Your task to perform on an android device: Open Google Chrome and open the bookmarks view Image 0: 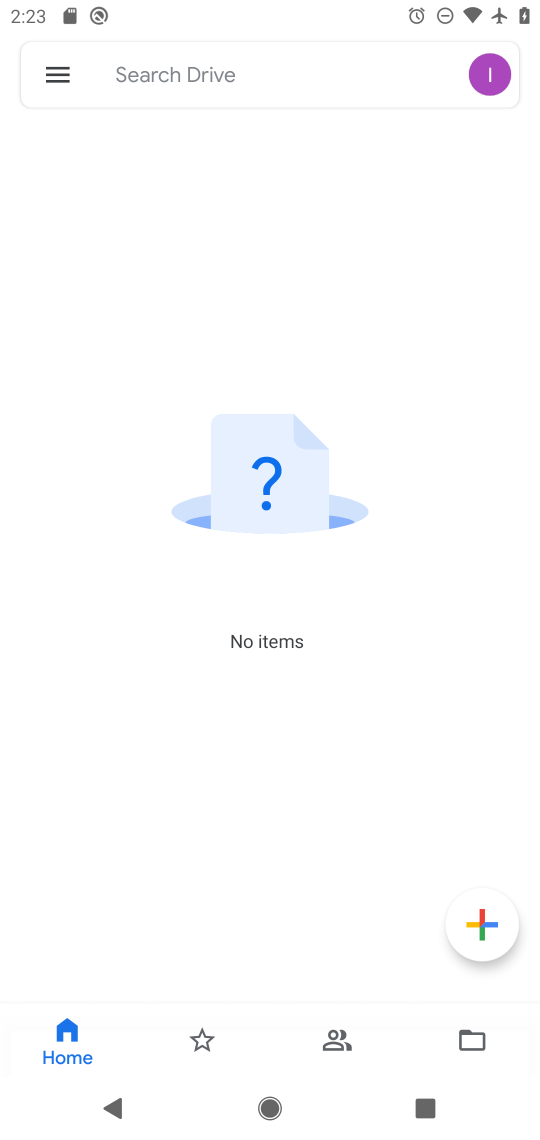
Step 0: press home button
Your task to perform on an android device: Open Google Chrome and open the bookmarks view Image 1: 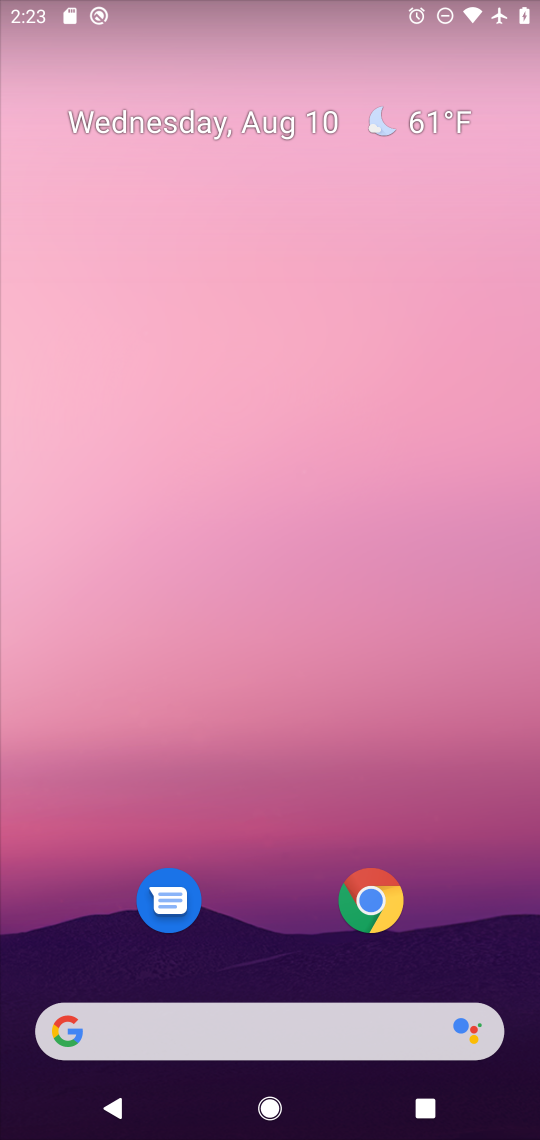
Step 1: click (369, 894)
Your task to perform on an android device: Open Google Chrome and open the bookmarks view Image 2: 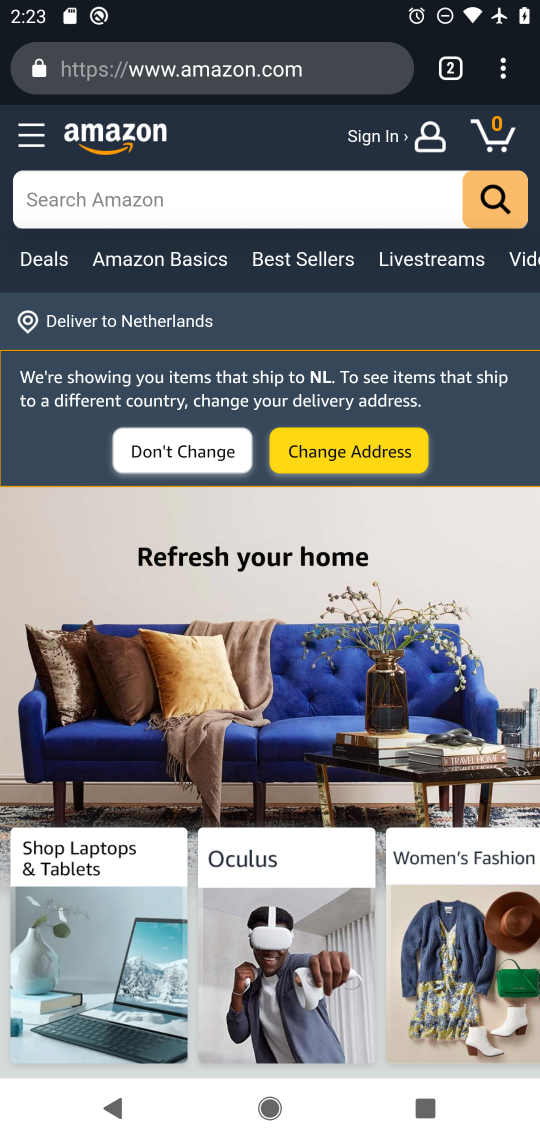
Step 2: click (505, 79)
Your task to perform on an android device: Open Google Chrome and open the bookmarks view Image 3: 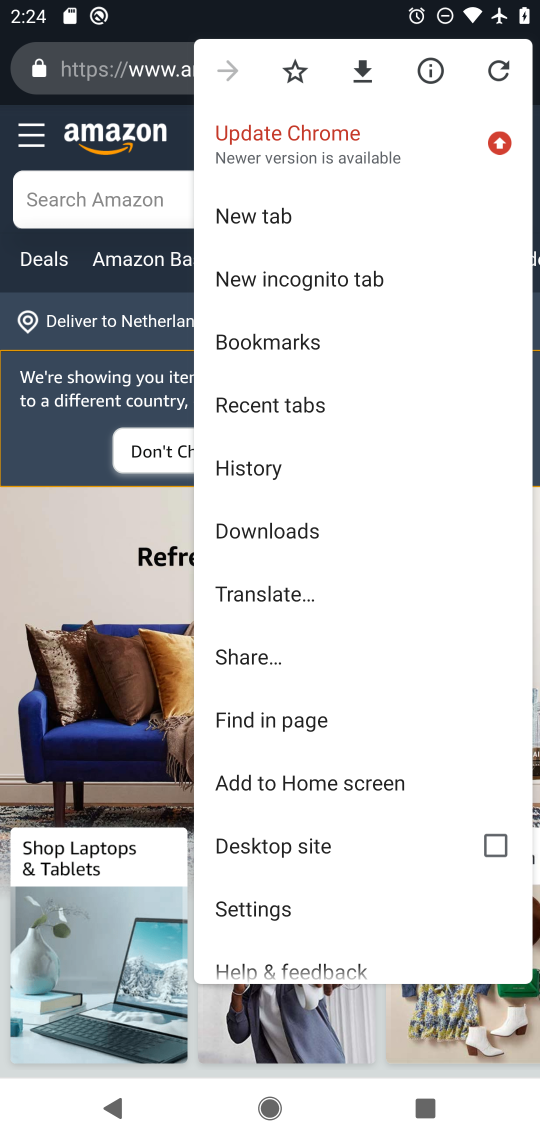
Step 3: click (308, 336)
Your task to perform on an android device: Open Google Chrome and open the bookmarks view Image 4: 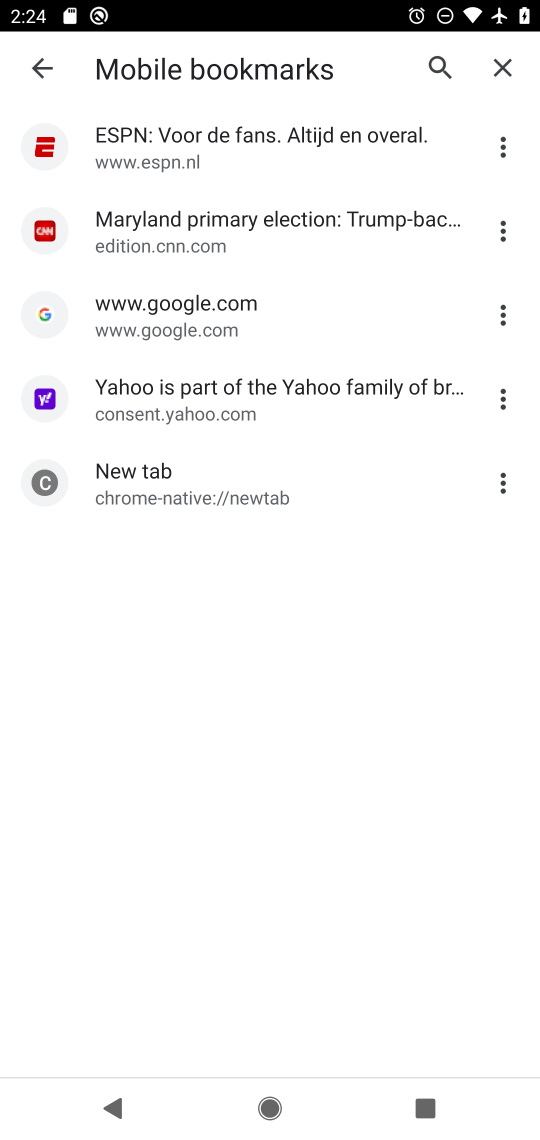
Step 4: click (324, 384)
Your task to perform on an android device: Open Google Chrome and open the bookmarks view Image 5: 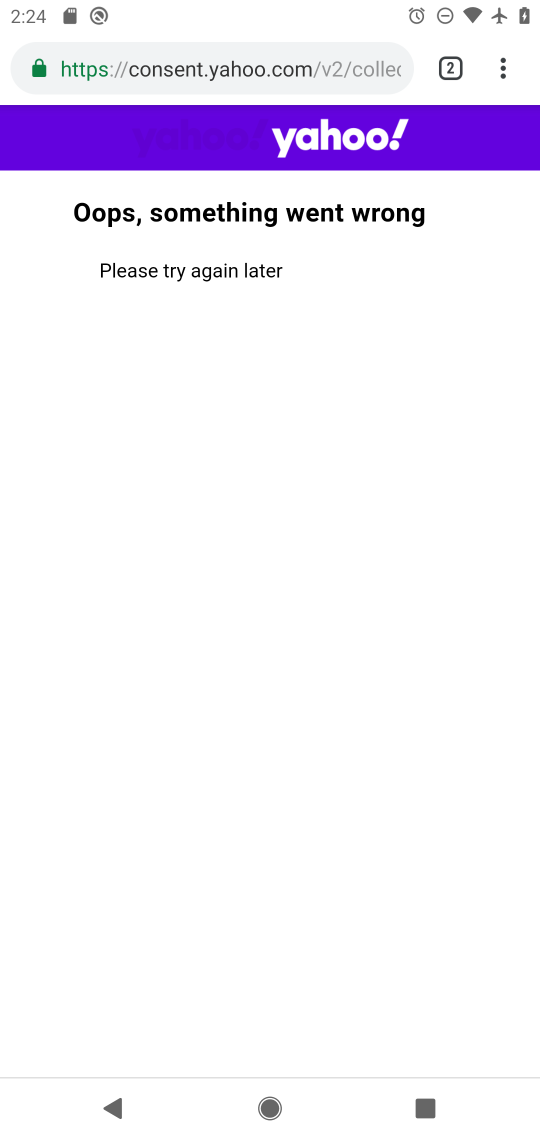
Step 5: task complete